Your task to perform on an android device: open chrome and create a bookmark for the current page Image 0: 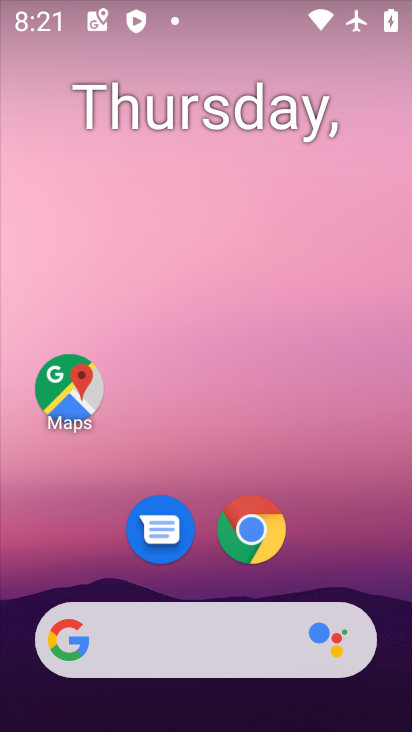
Step 0: drag from (129, 629) to (214, 94)
Your task to perform on an android device: open chrome and create a bookmark for the current page Image 1: 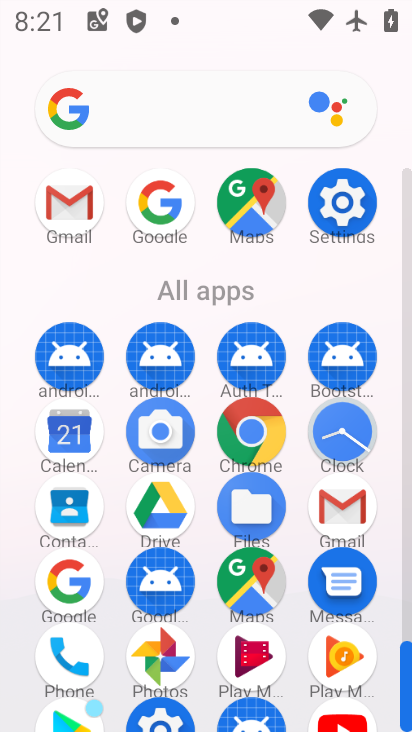
Step 1: click (262, 442)
Your task to perform on an android device: open chrome and create a bookmark for the current page Image 2: 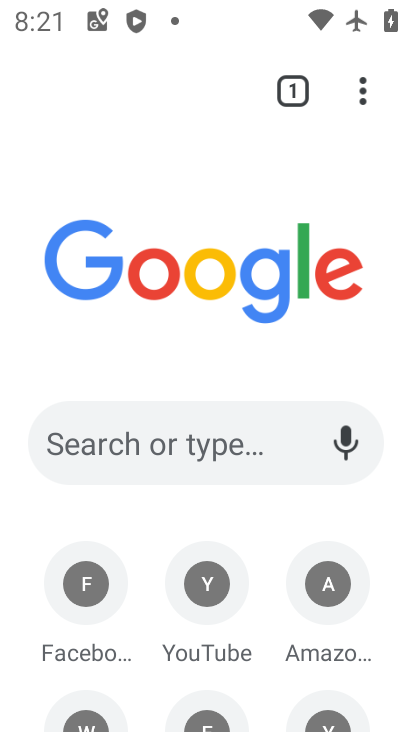
Step 2: click (355, 100)
Your task to perform on an android device: open chrome and create a bookmark for the current page Image 3: 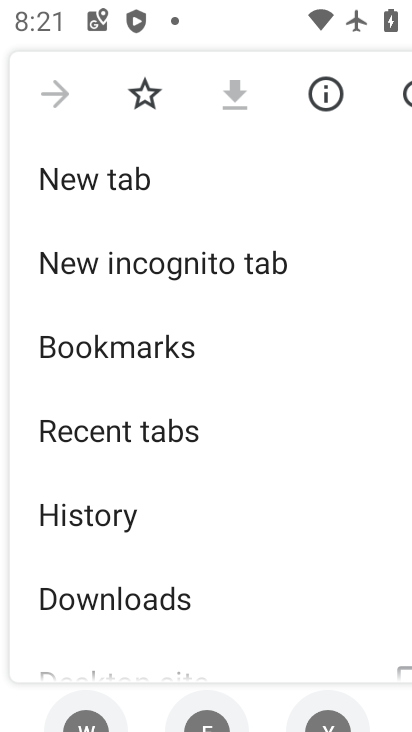
Step 3: click (143, 95)
Your task to perform on an android device: open chrome and create a bookmark for the current page Image 4: 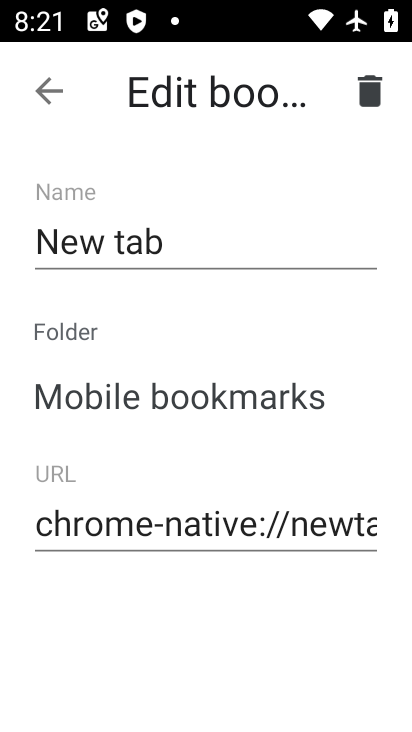
Step 4: click (51, 91)
Your task to perform on an android device: open chrome and create a bookmark for the current page Image 5: 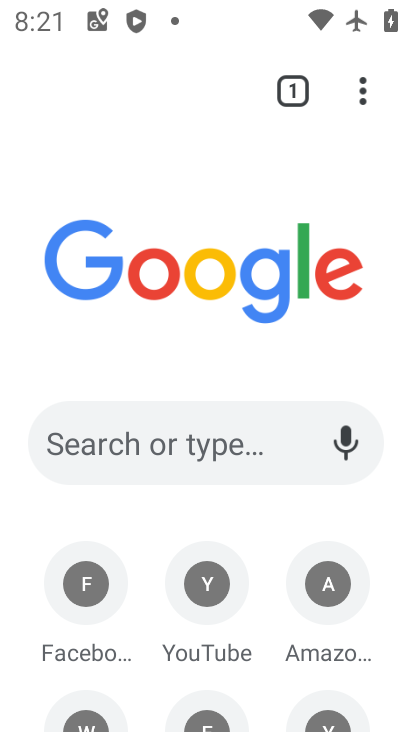
Step 5: click (356, 101)
Your task to perform on an android device: open chrome and create a bookmark for the current page Image 6: 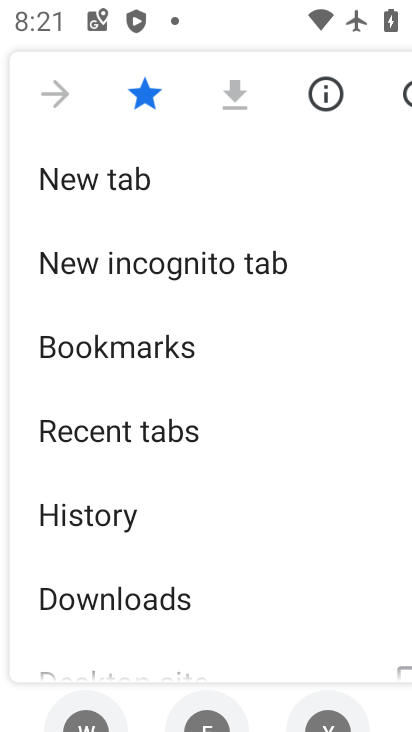
Step 6: task complete